Your task to perform on an android device: turn off javascript in the chrome app Image 0: 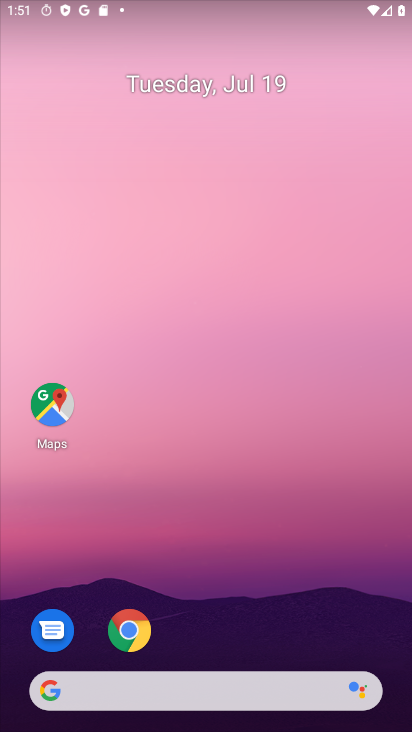
Step 0: click (143, 631)
Your task to perform on an android device: turn off javascript in the chrome app Image 1: 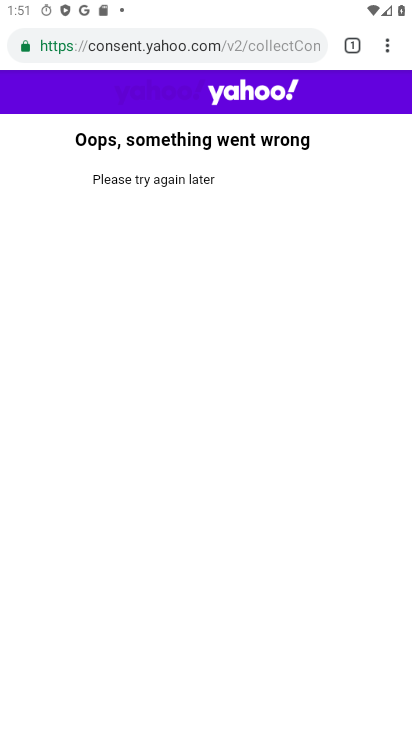
Step 1: click (393, 37)
Your task to perform on an android device: turn off javascript in the chrome app Image 2: 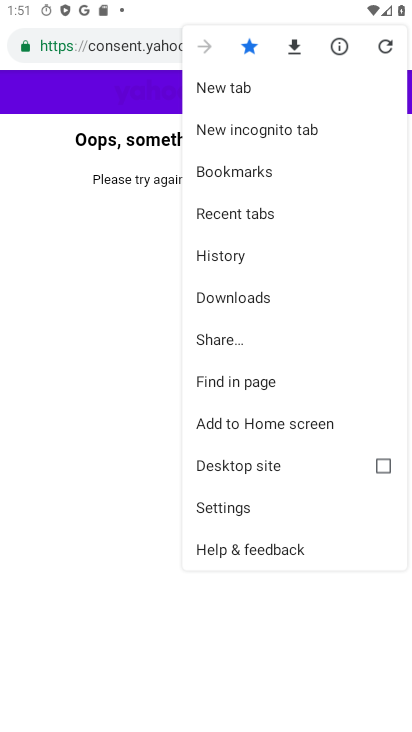
Step 2: click (211, 496)
Your task to perform on an android device: turn off javascript in the chrome app Image 3: 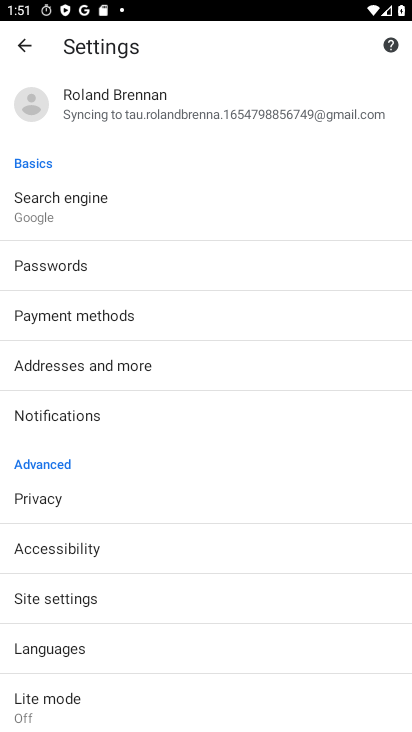
Step 3: click (86, 598)
Your task to perform on an android device: turn off javascript in the chrome app Image 4: 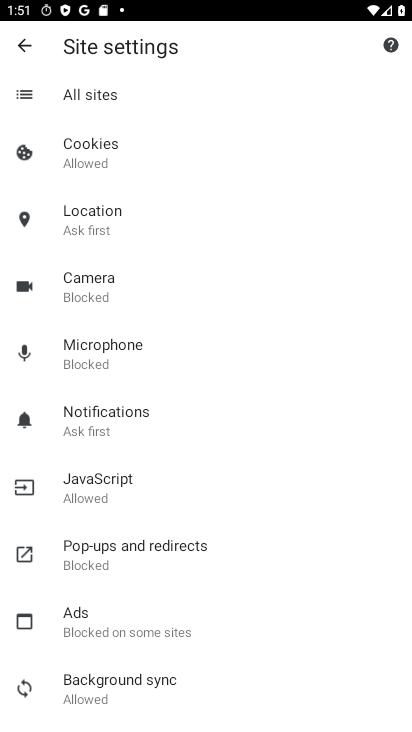
Step 4: click (114, 492)
Your task to perform on an android device: turn off javascript in the chrome app Image 5: 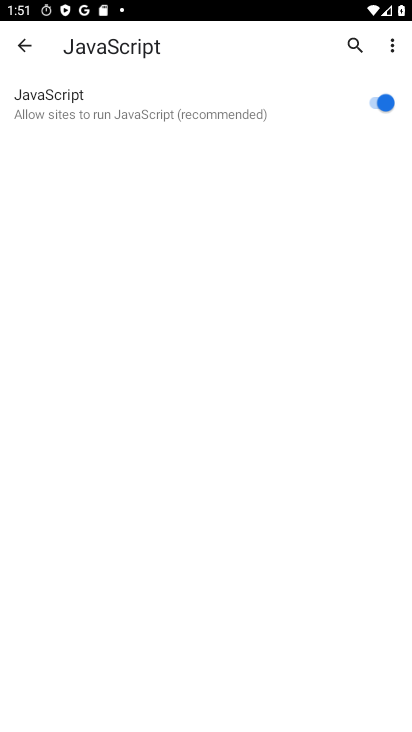
Step 5: click (391, 89)
Your task to perform on an android device: turn off javascript in the chrome app Image 6: 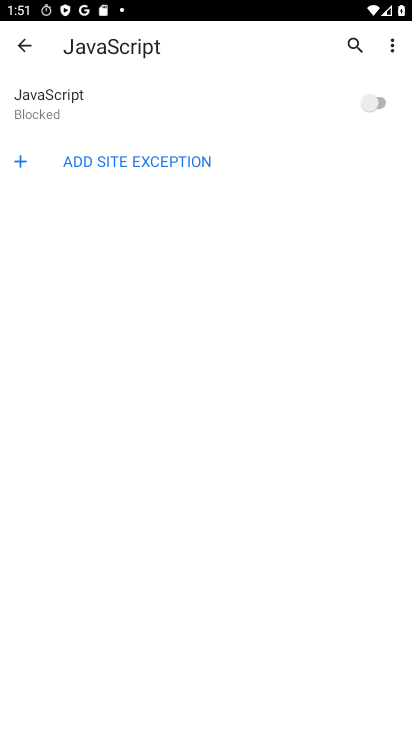
Step 6: task complete